Your task to perform on an android device: What is the recent news? Image 0: 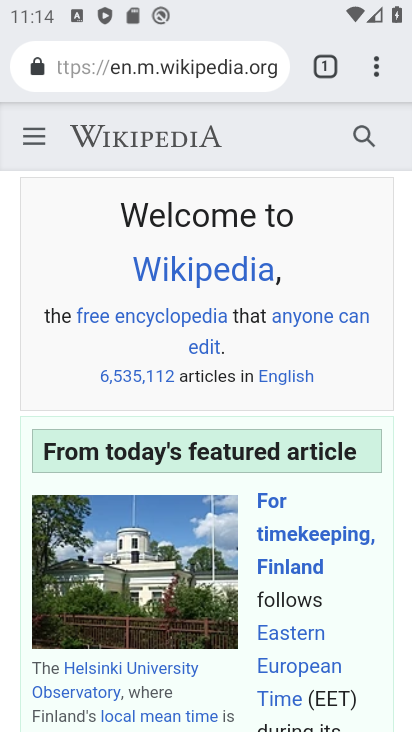
Step 0: press home button
Your task to perform on an android device: What is the recent news? Image 1: 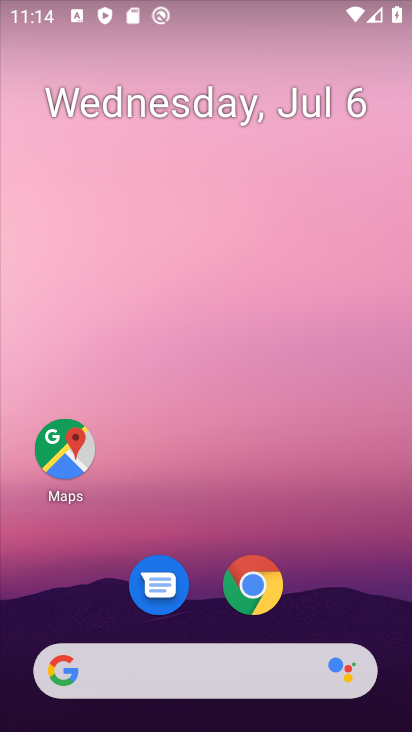
Step 1: click (251, 673)
Your task to perform on an android device: What is the recent news? Image 2: 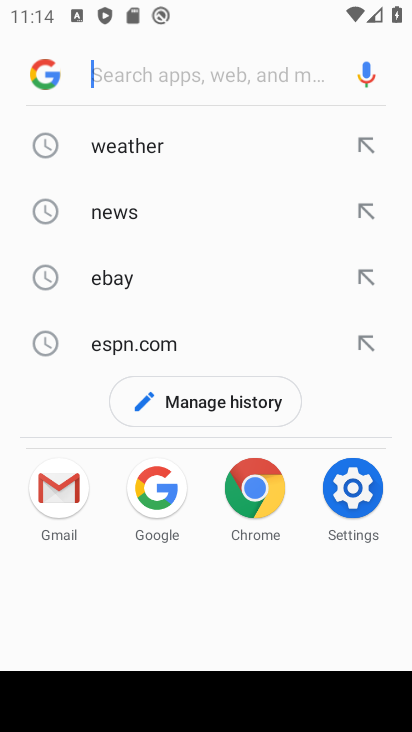
Step 2: click (125, 199)
Your task to perform on an android device: What is the recent news? Image 3: 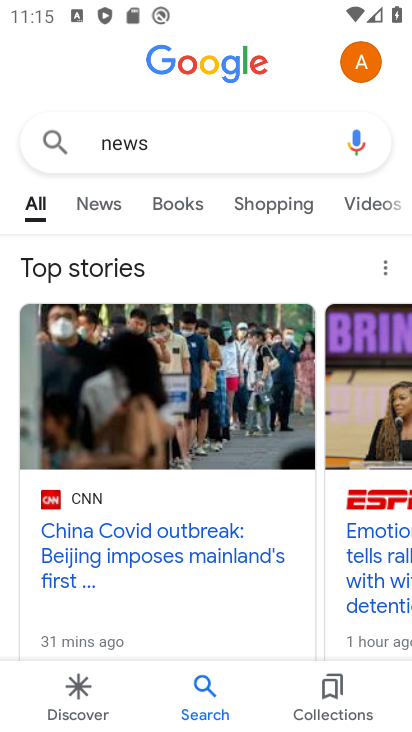
Step 3: click (111, 205)
Your task to perform on an android device: What is the recent news? Image 4: 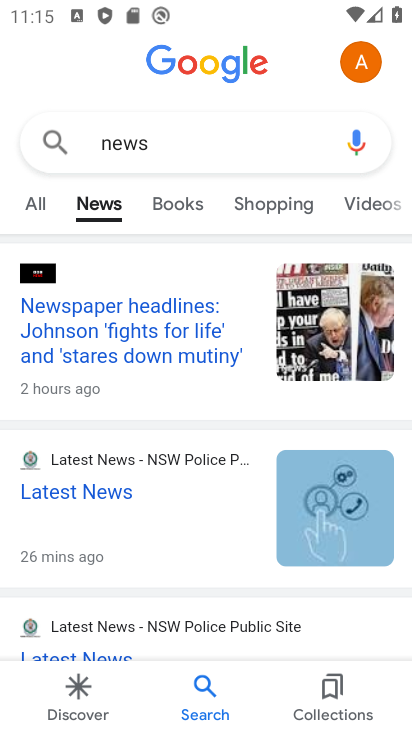
Step 4: task complete